Your task to perform on an android device: move an email to a new category in the gmail app Image 0: 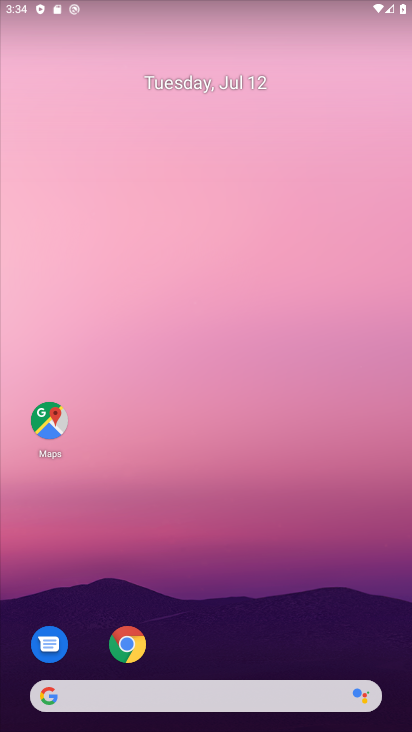
Step 0: drag from (228, 635) to (162, 27)
Your task to perform on an android device: move an email to a new category in the gmail app Image 1: 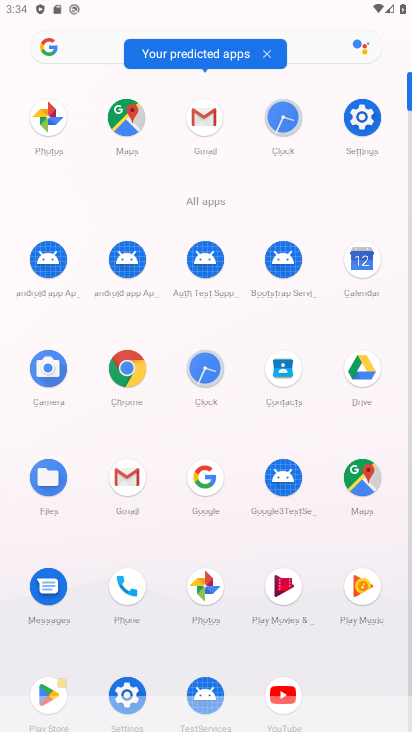
Step 1: click (121, 474)
Your task to perform on an android device: move an email to a new category in the gmail app Image 2: 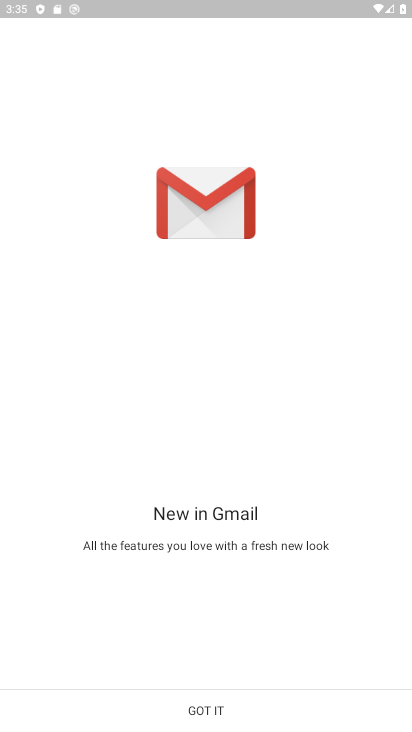
Step 2: click (220, 701)
Your task to perform on an android device: move an email to a new category in the gmail app Image 3: 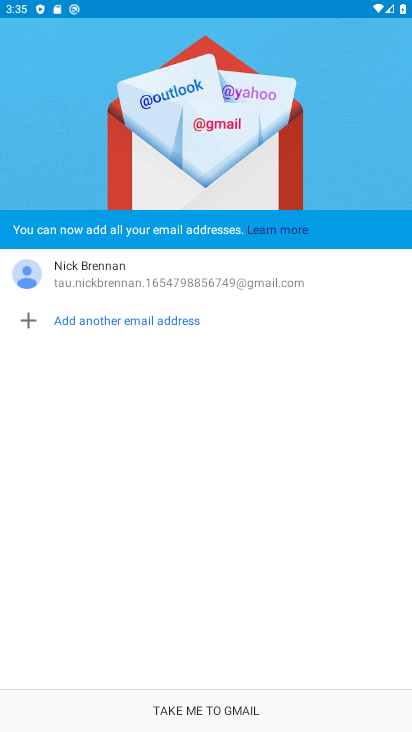
Step 3: click (212, 704)
Your task to perform on an android device: move an email to a new category in the gmail app Image 4: 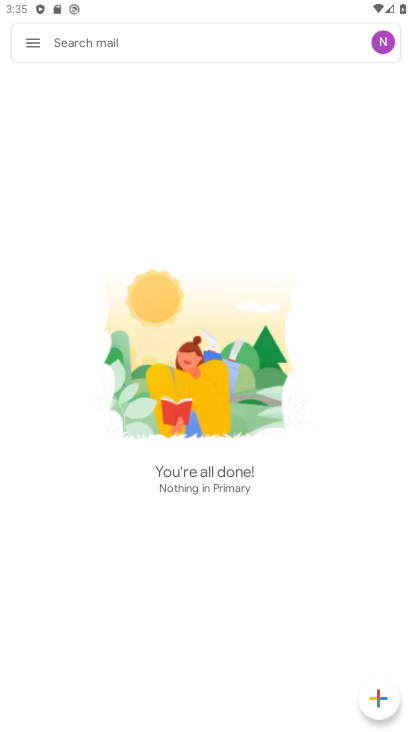
Step 4: click (33, 39)
Your task to perform on an android device: move an email to a new category in the gmail app Image 5: 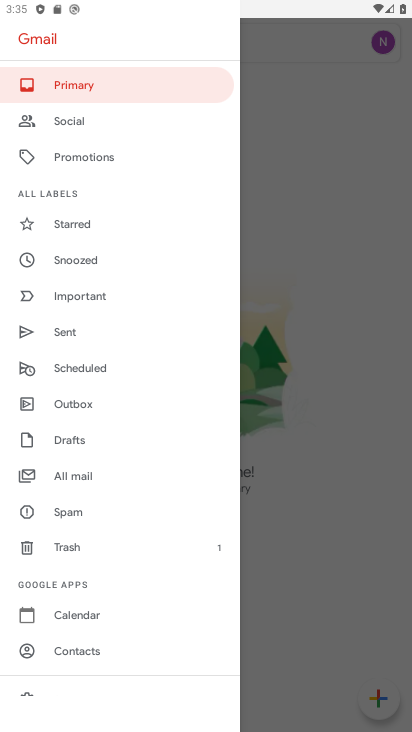
Step 5: click (78, 467)
Your task to perform on an android device: move an email to a new category in the gmail app Image 6: 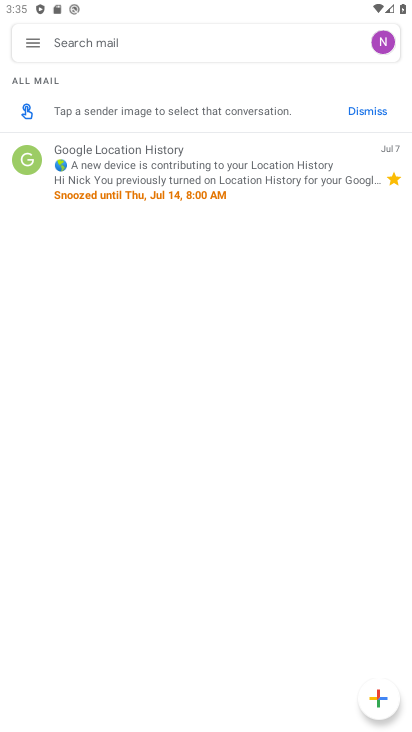
Step 6: click (175, 161)
Your task to perform on an android device: move an email to a new category in the gmail app Image 7: 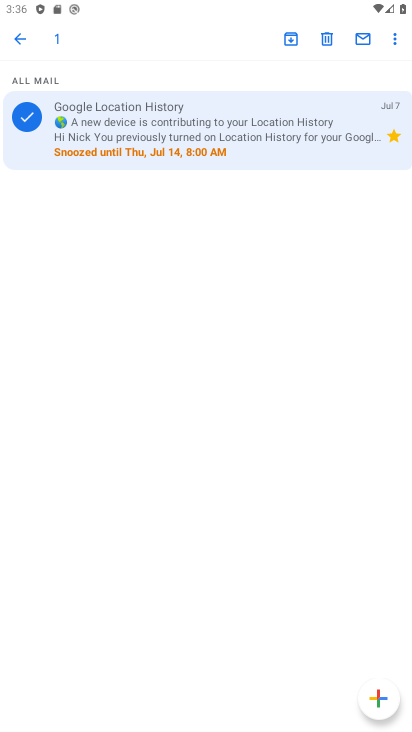
Step 7: click (403, 40)
Your task to perform on an android device: move an email to a new category in the gmail app Image 8: 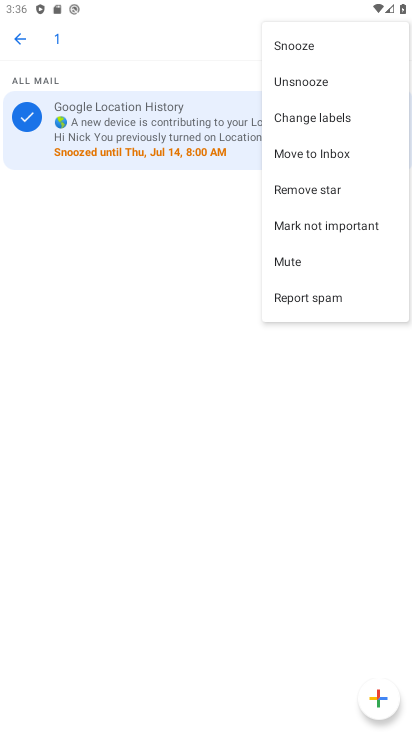
Step 8: click (314, 152)
Your task to perform on an android device: move an email to a new category in the gmail app Image 9: 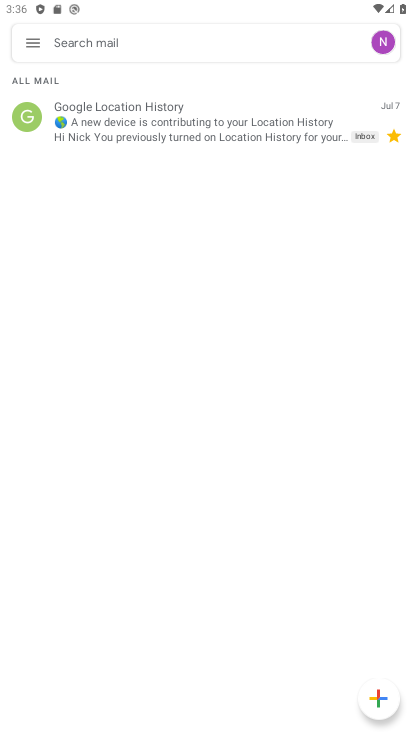
Step 9: task complete